Your task to perform on an android device: refresh tabs in the chrome app Image 0: 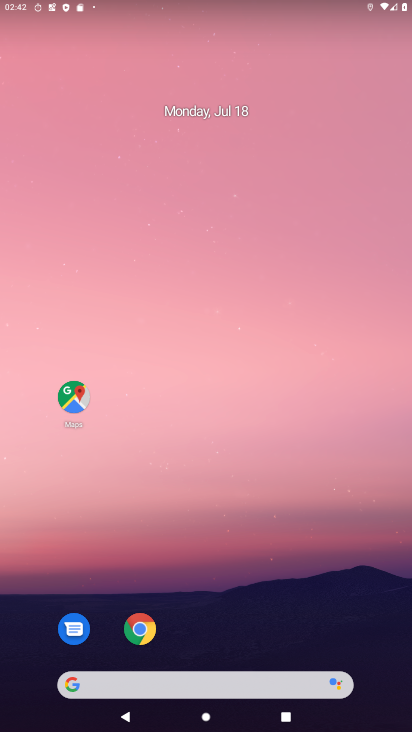
Step 0: click (137, 624)
Your task to perform on an android device: refresh tabs in the chrome app Image 1: 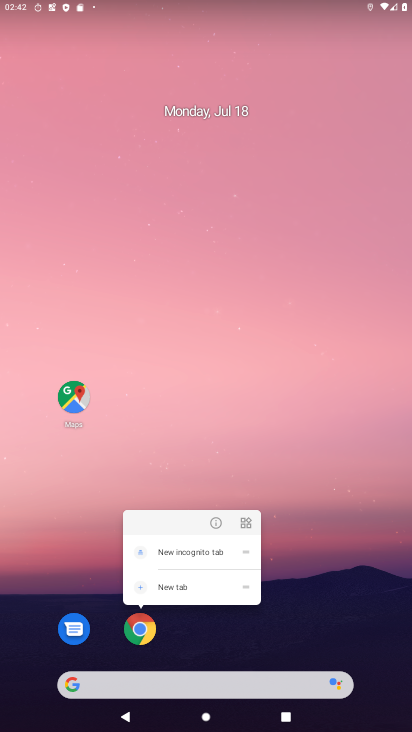
Step 1: click (136, 629)
Your task to perform on an android device: refresh tabs in the chrome app Image 2: 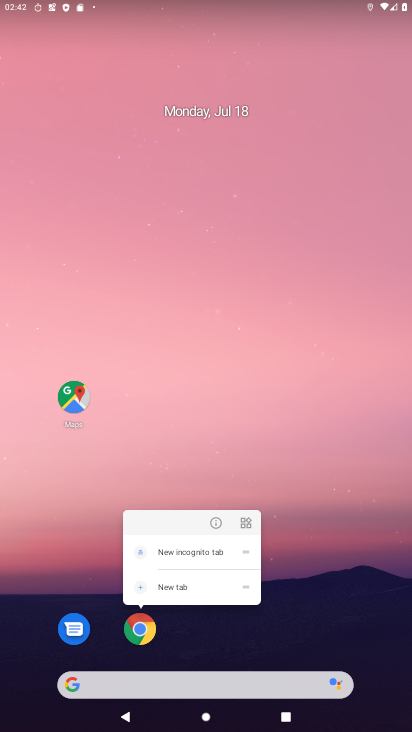
Step 2: click (136, 629)
Your task to perform on an android device: refresh tabs in the chrome app Image 3: 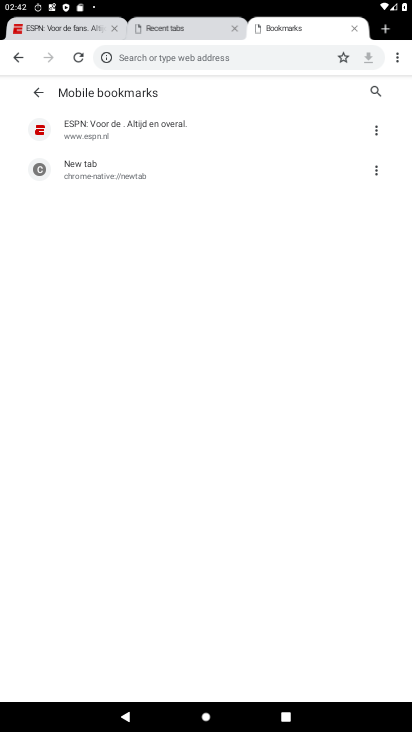
Step 3: click (79, 57)
Your task to perform on an android device: refresh tabs in the chrome app Image 4: 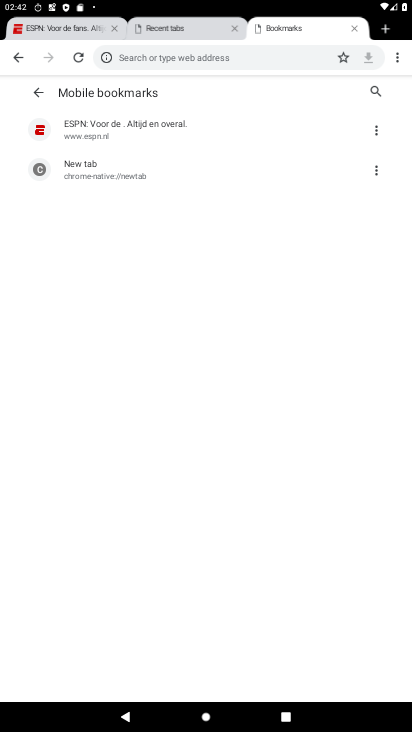
Step 4: task complete